Your task to perform on an android device: Find coffee shops on Maps Image 0: 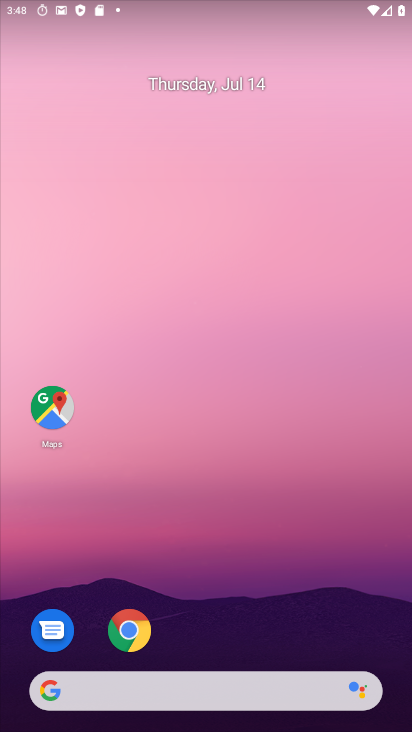
Step 0: drag from (211, 661) to (268, 155)
Your task to perform on an android device: Find coffee shops on Maps Image 1: 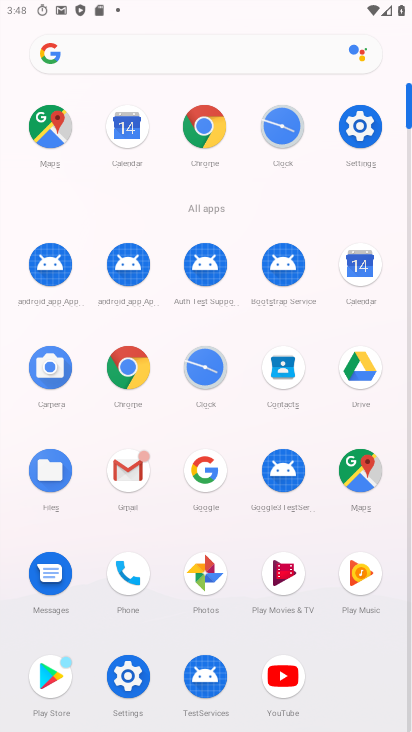
Step 1: click (349, 471)
Your task to perform on an android device: Find coffee shops on Maps Image 2: 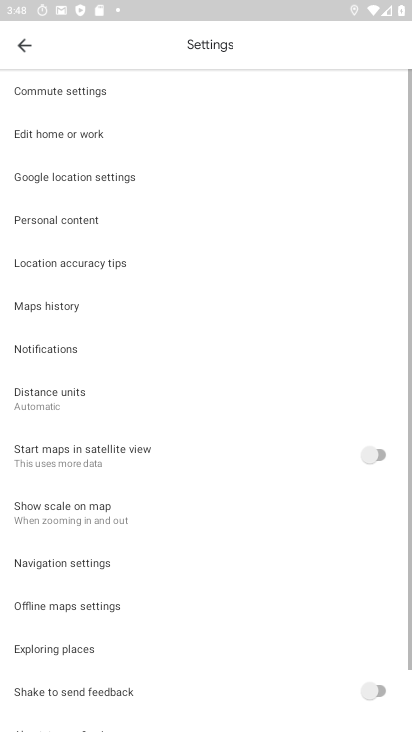
Step 2: press back button
Your task to perform on an android device: Find coffee shops on Maps Image 3: 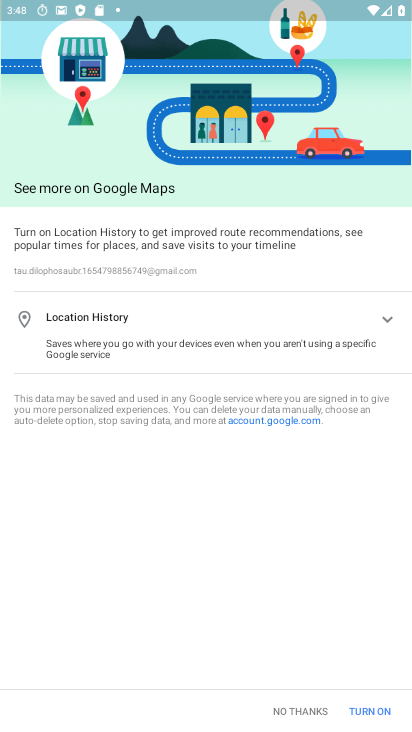
Step 3: click (305, 715)
Your task to perform on an android device: Find coffee shops on Maps Image 4: 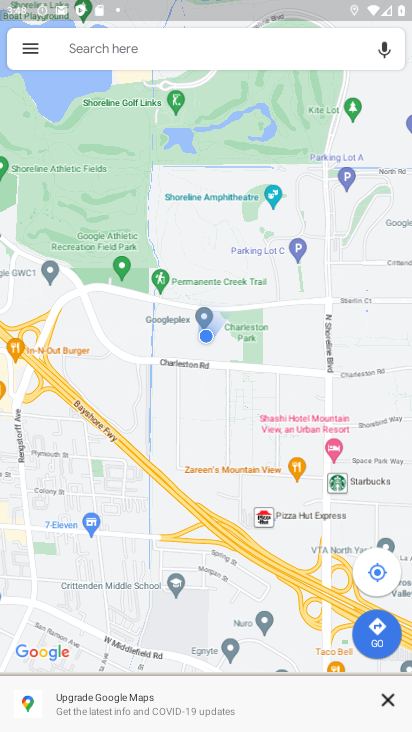
Step 4: click (146, 45)
Your task to perform on an android device: Find coffee shops on Maps Image 5: 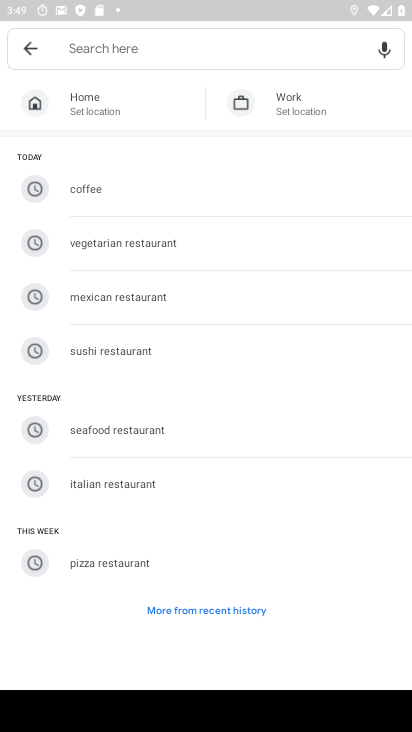
Step 5: type "Coffee shops"
Your task to perform on an android device: Find coffee shops on Maps Image 6: 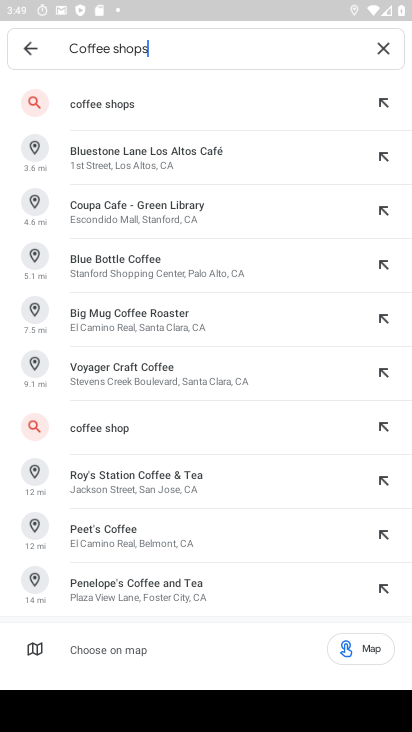
Step 6: press enter
Your task to perform on an android device: Find coffee shops on Maps Image 7: 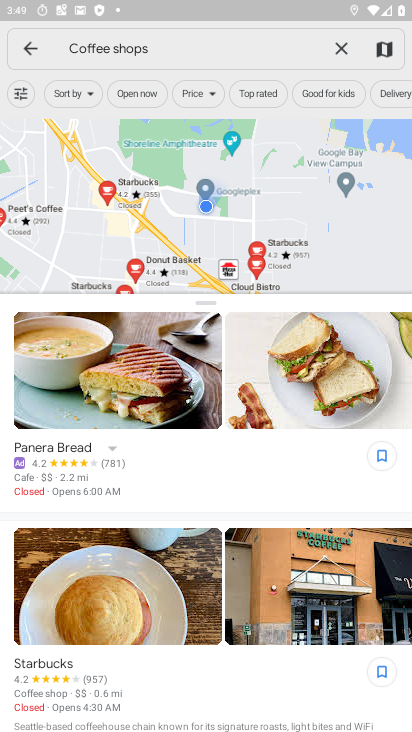
Step 7: task complete